Your task to perform on an android device: Search for "macbook air" on bestbuy, select the first entry, add it to the cart, then select checkout. Image 0: 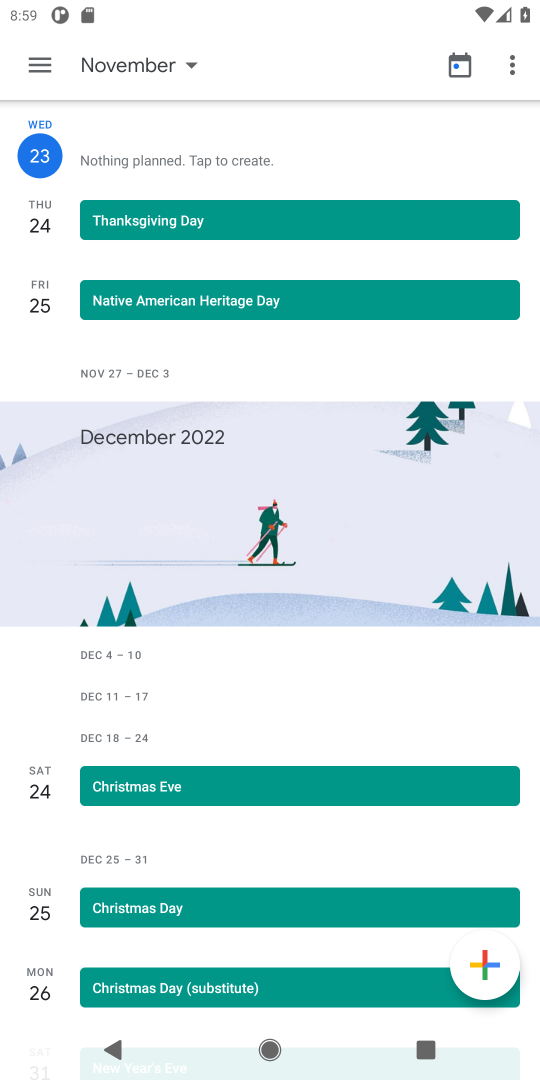
Step 0: press home button
Your task to perform on an android device: Search for "macbook air" on bestbuy, select the first entry, add it to the cart, then select checkout. Image 1: 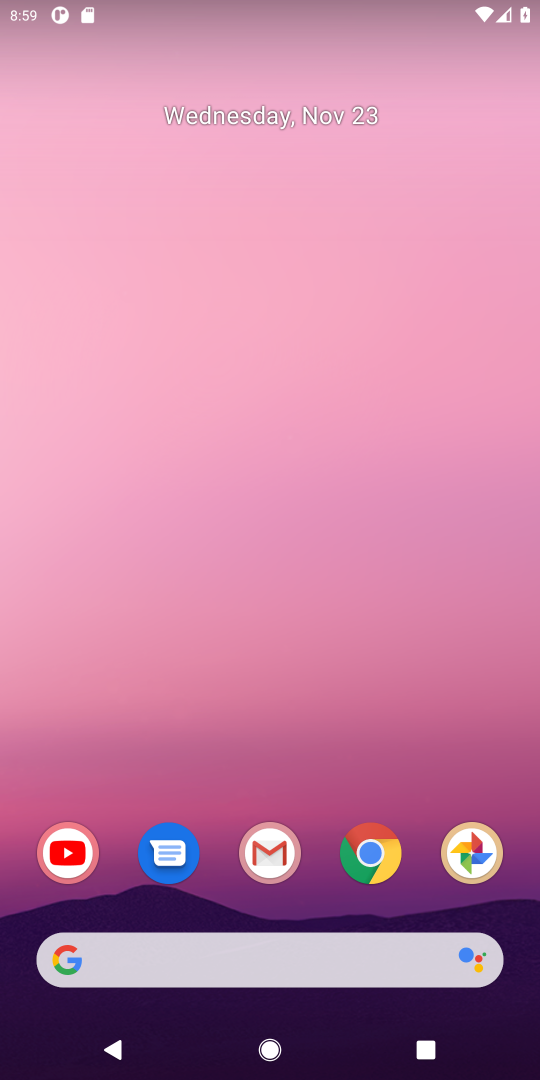
Step 1: click (376, 854)
Your task to perform on an android device: Search for "macbook air" on bestbuy, select the first entry, add it to the cart, then select checkout. Image 2: 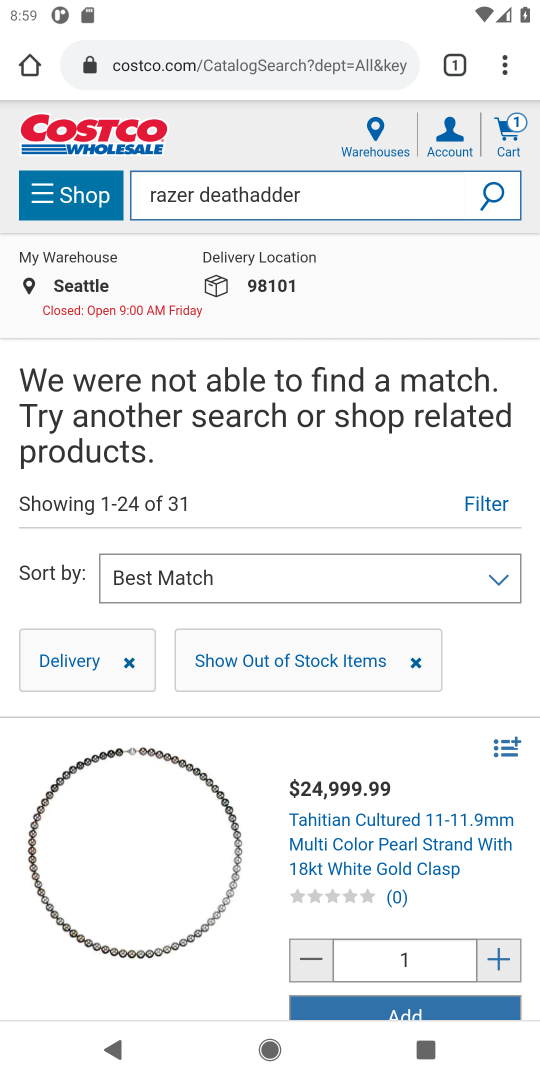
Step 2: click (207, 58)
Your task to perform on an android device: Search for "macbook air" on bestbuy, select the first entry, add it to the cart, then select checkout. Image 3: 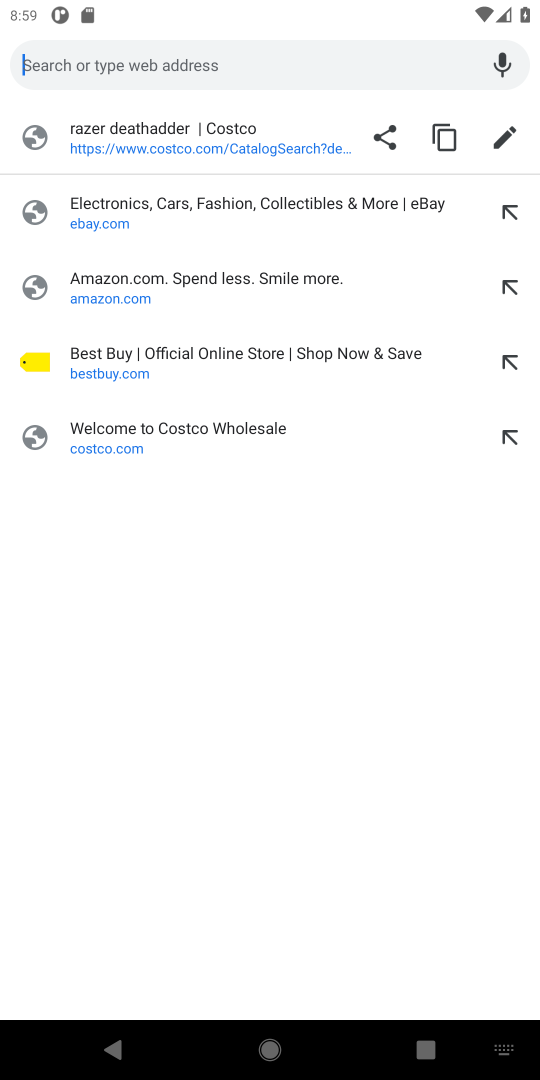
Step 3: click (85, 371)
Your task to perform on an android device: Search for "macbook air" on bestbuy, select the first entry, add it to the cart, then select checkout. Image 4: 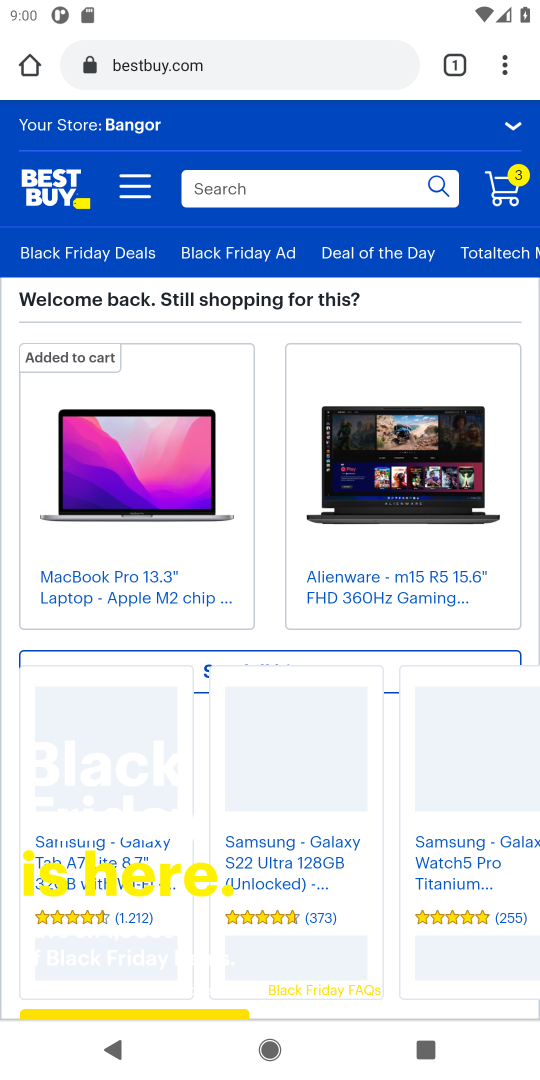
Step 4: click (245, 184)
Your task to perform on an android device: Search for "macbook air" on bestbuy, select the first entry, add it to the cart, then select checkout. Image 5: 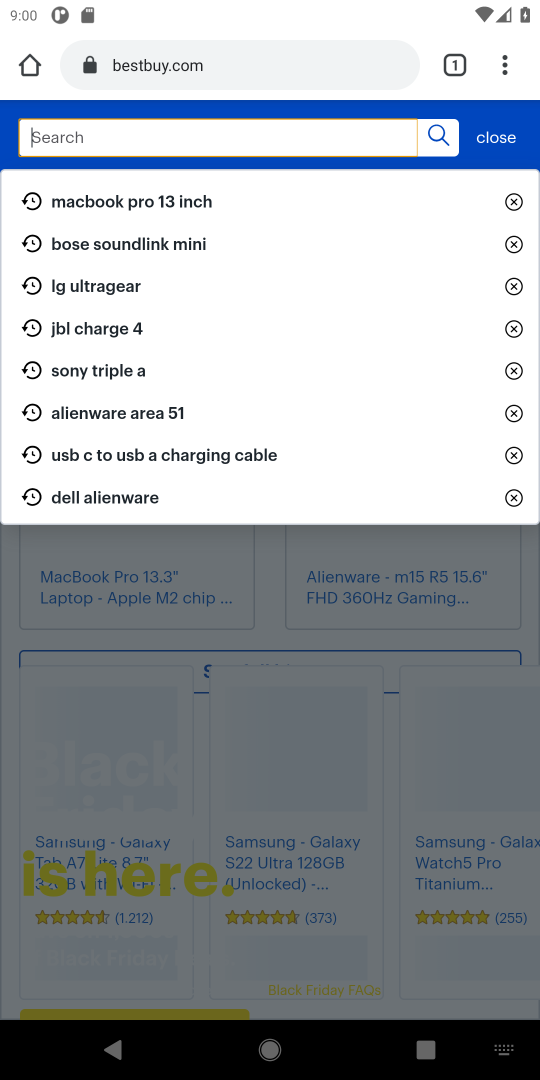
Step 5: type "macbook air"
Your task to perform on an android device: Search for "macbook air" on bestbuy, select the first entry, add it to the cart, then select checkout. Image 6: 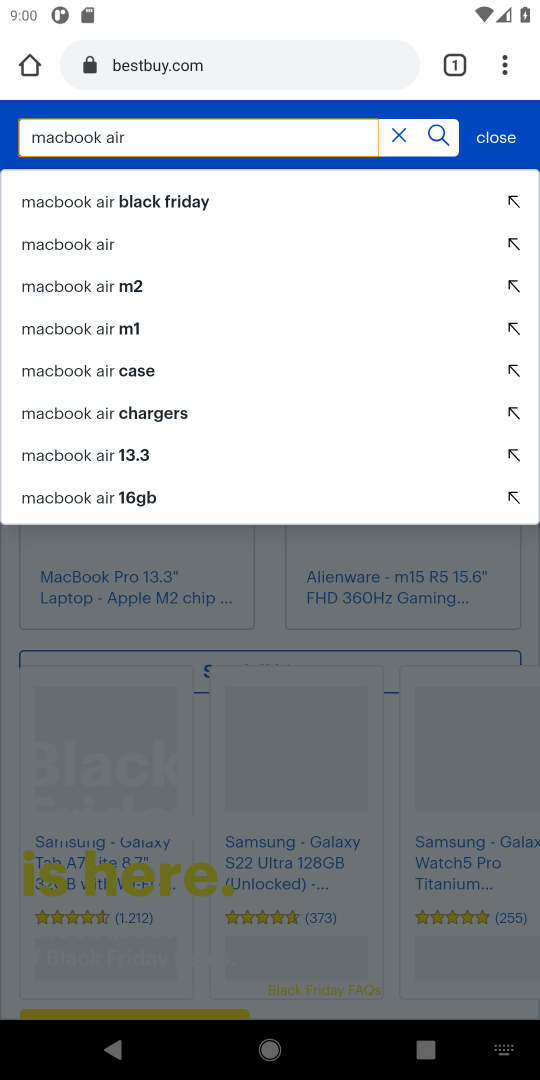
Step 6: click (84, 244)
Your task to perform on an android device: Search for "macbook air" on bestbuy, select the first entry, add it to the cart, then select checkout. Image 7: 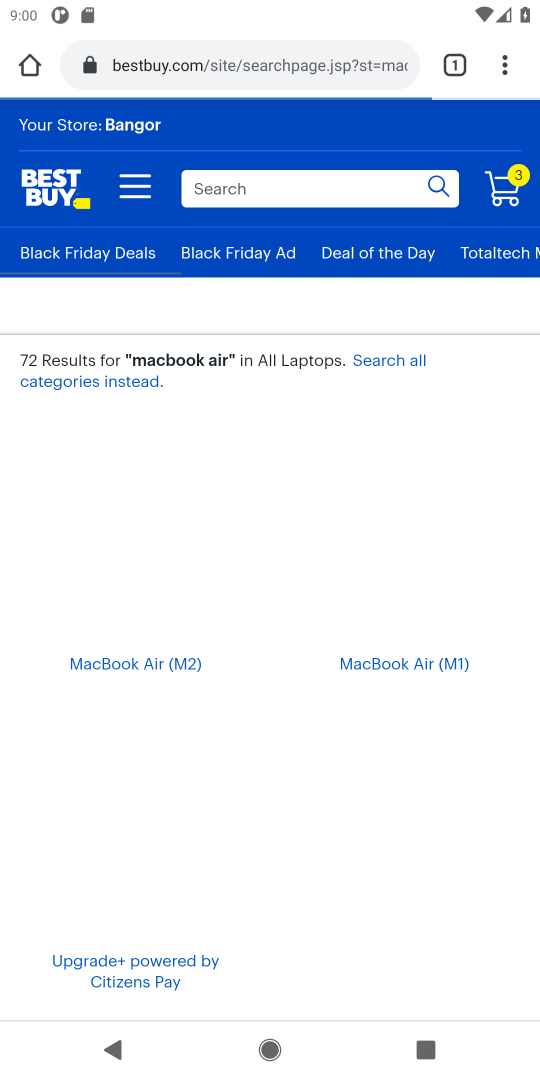
Step 7: click (434, 137)
Your task to perform on an android device: Search for "macbook air" on bestbuy, select the first entry, add it to the cart, then select checkout. Image 8: 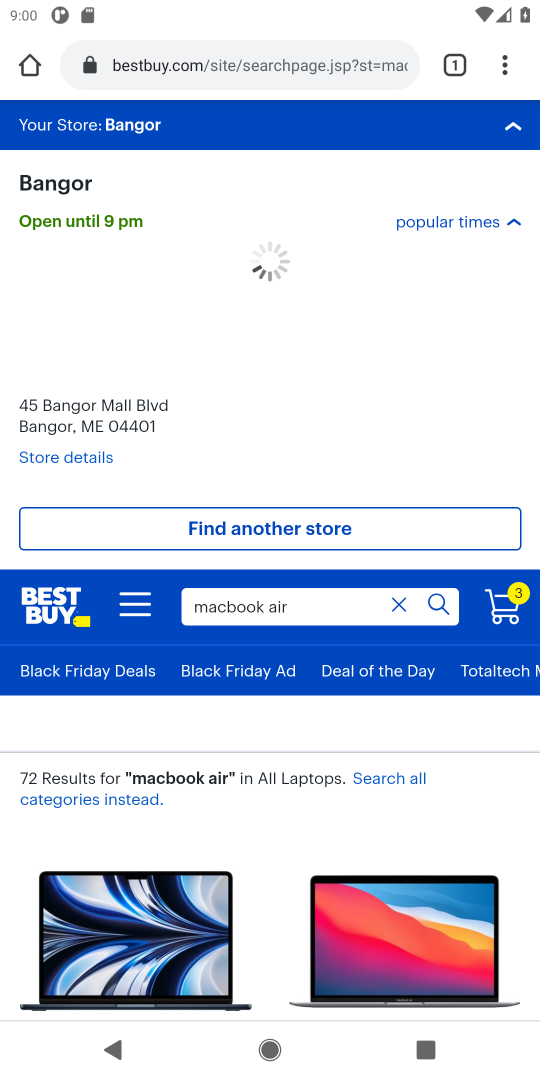
Step 8: click (441, 609)
Your task to perform on an android device: Search for "macbook air" on bestbuy, select the first entry, add it to the cart, then select checkout. Image 9: 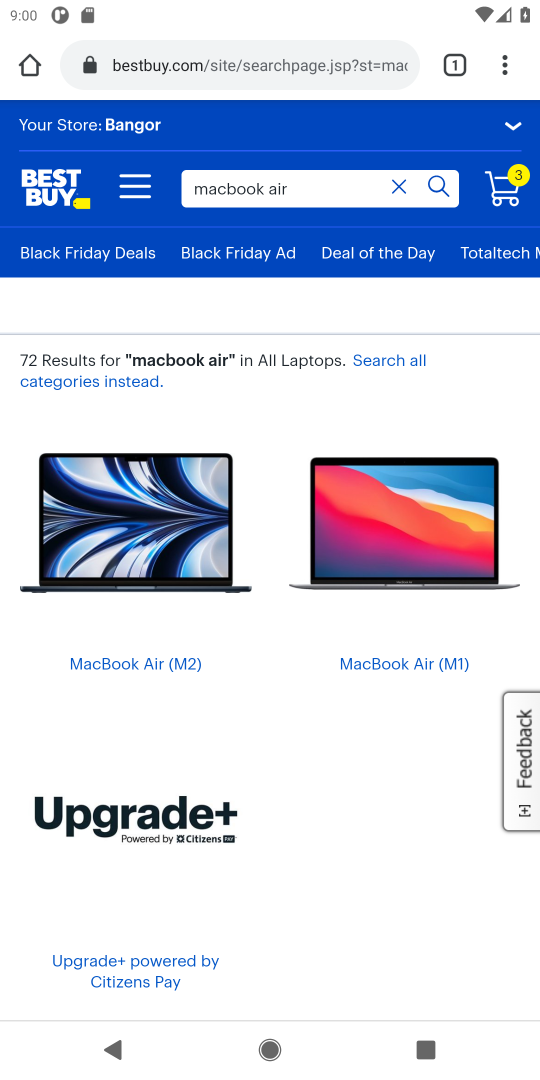
Step 9: drag from (225, 713) to (250, 516)
Your task to perform on an android device: Search for "macbook air" on bestbuy, select the first entry, add it to the cart, then select checkout. Image 10: 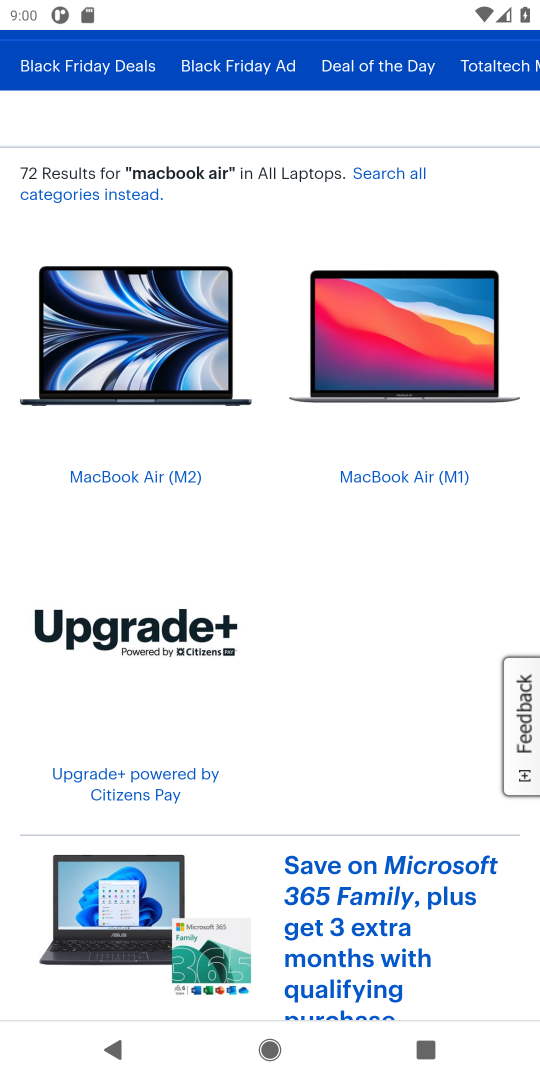
Step 10: drag from (229, 713) to (242, 360)
Your task to perform on an android device: Search for "macbook air" on bestbuy, select the first entry, add it to the cart, then select checkout. Image 11: 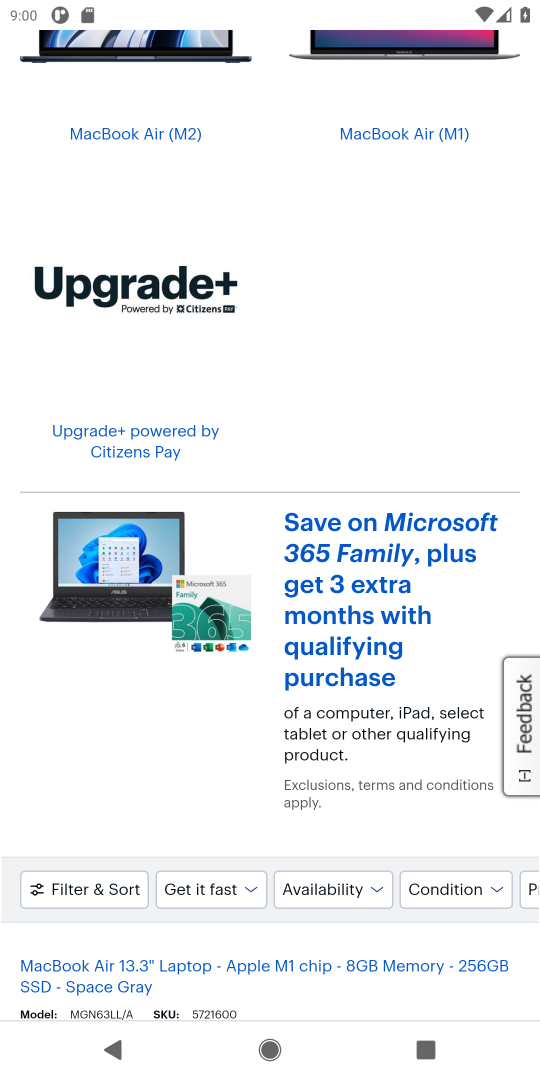
Step 11: drag from (219, 673) to (219, 493)
Your task to perform on an android device: Search for "macbook air" on bestbuy, select the first entry, add it to the cart, then select checkout. Image 12: 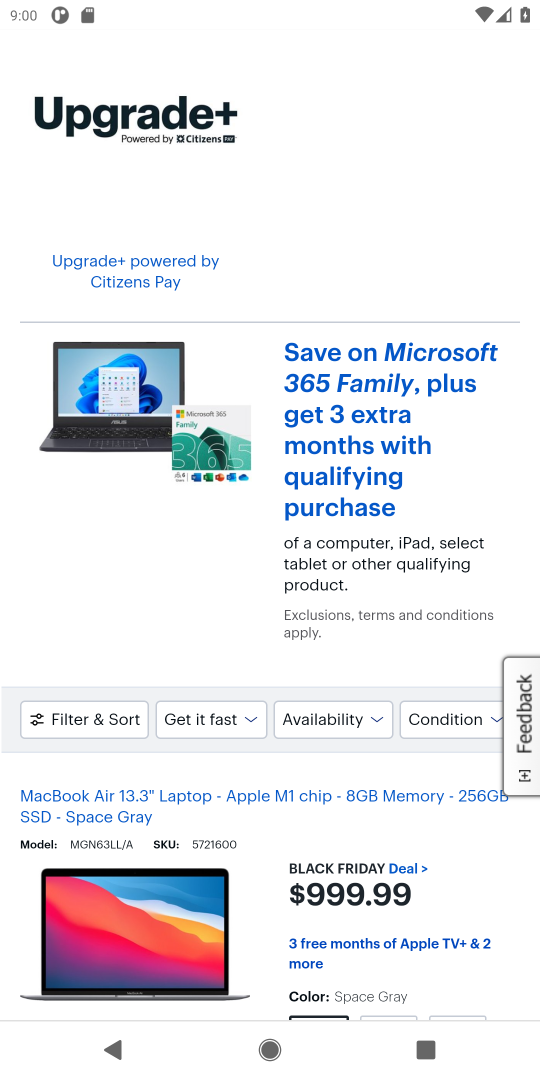
Step 12: drag from (220, 772) to (207, 262)
Your task to perform on an android device: Search for "macbook air" on bestbuy, select the first entry, add it to the cart, then select checkout. Image 13: 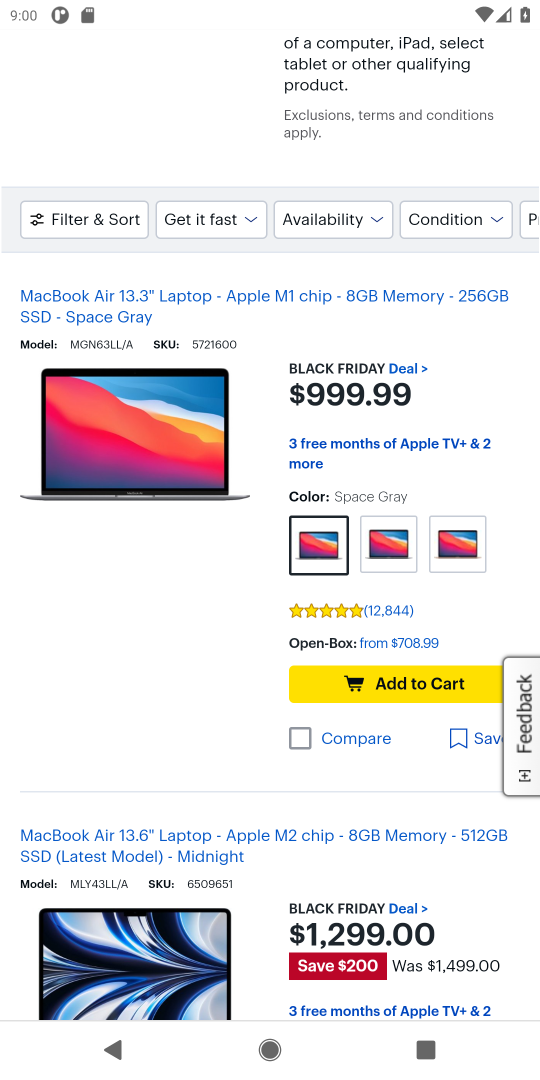
Step 13: click (389, 690)
Your task to perform on an android device: Search for "macbook air" on bestbuy, select the first entry, add it to the cart, then select checkout. Image 14: 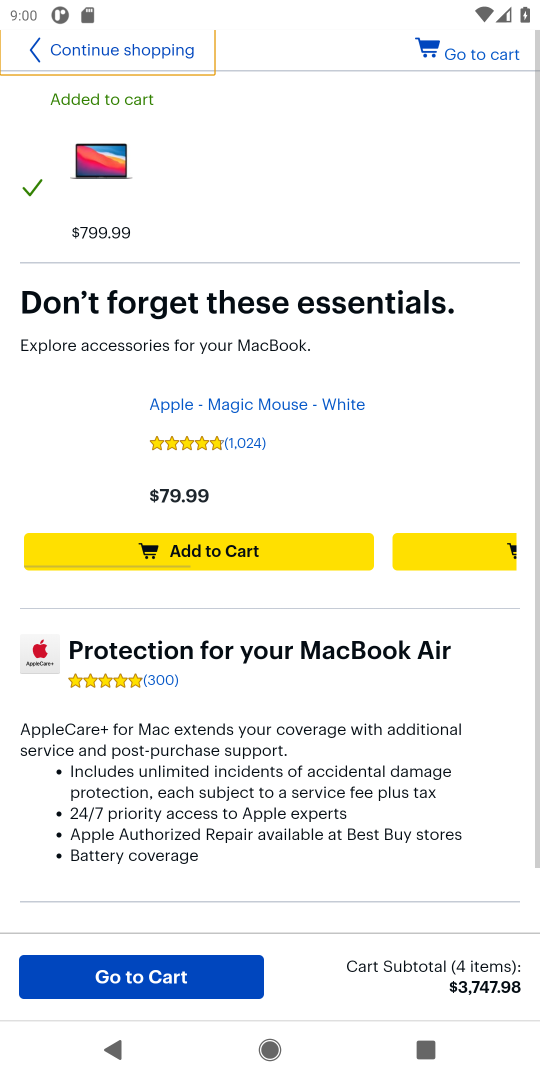
Step 14: click (483, 57)
Your task to perform on an android device: Search for "macbook air" on bestbuy, select the first entry, add it to the cart, then select checkout. Image 15: 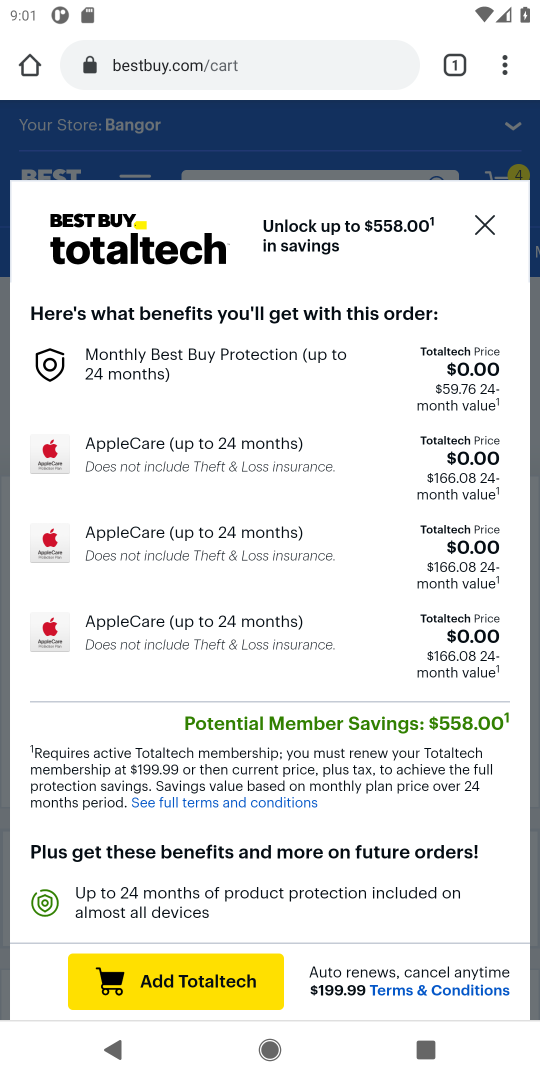
Step 15: click (487, 227)
Your task to perform on an android device: Search for "macbook air" on bestbuy, select the first entry, add it to the cart, then select checkout. Image 16: 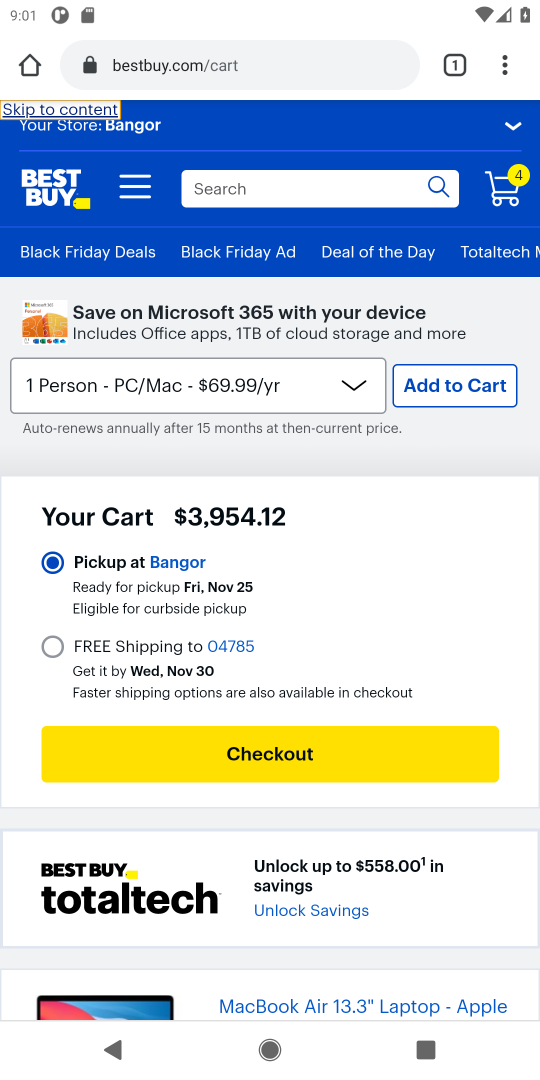
Step 16: click (254, 760)
Your task to perform on an android device: Search for "macbook air" on bestbuy, select the first entry, add it to the cart, then select checkout. Image 17: 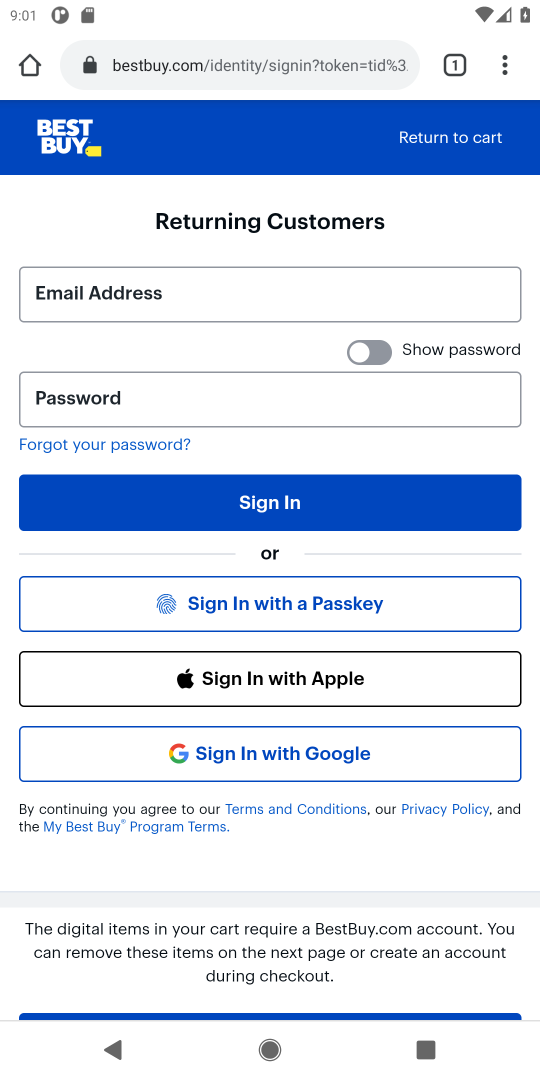
Step 17: task complete